Your task to perform on an android device: install app "Microsoft Authenticator" Image 0: 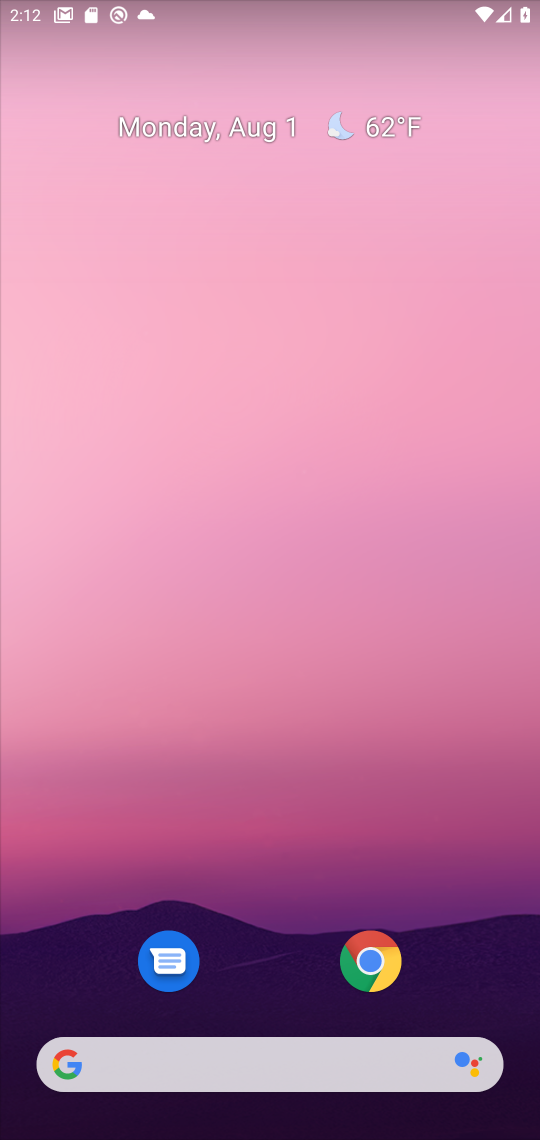
Step 0: press home button
Your task to perform on an android device: install app "Microsoft Authenticator" Image 1: 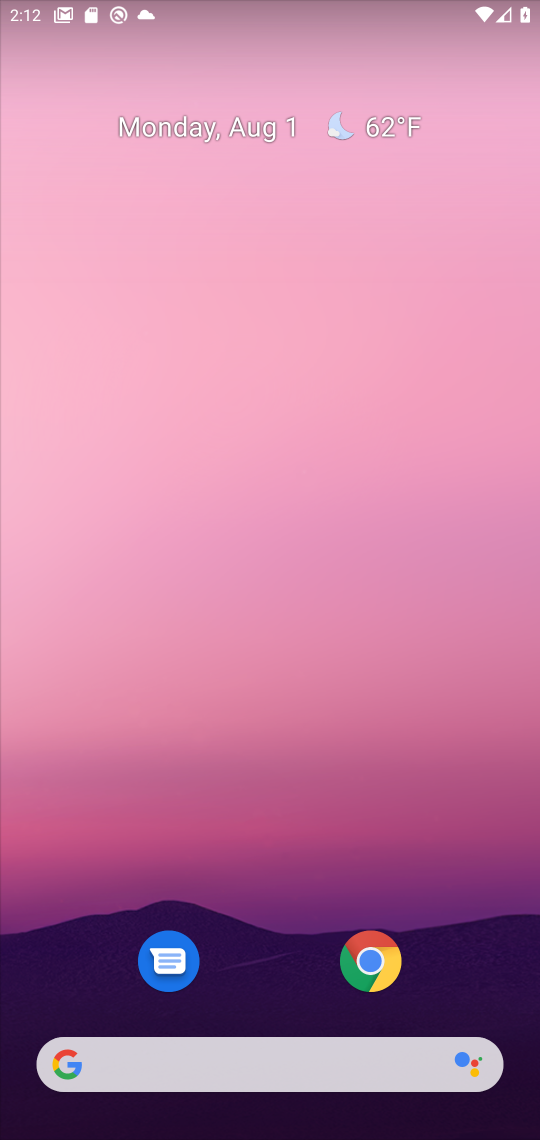
Step 1: press home button
Your task to perform on an android device: install app "Microsoft Authenticator" Image 2: 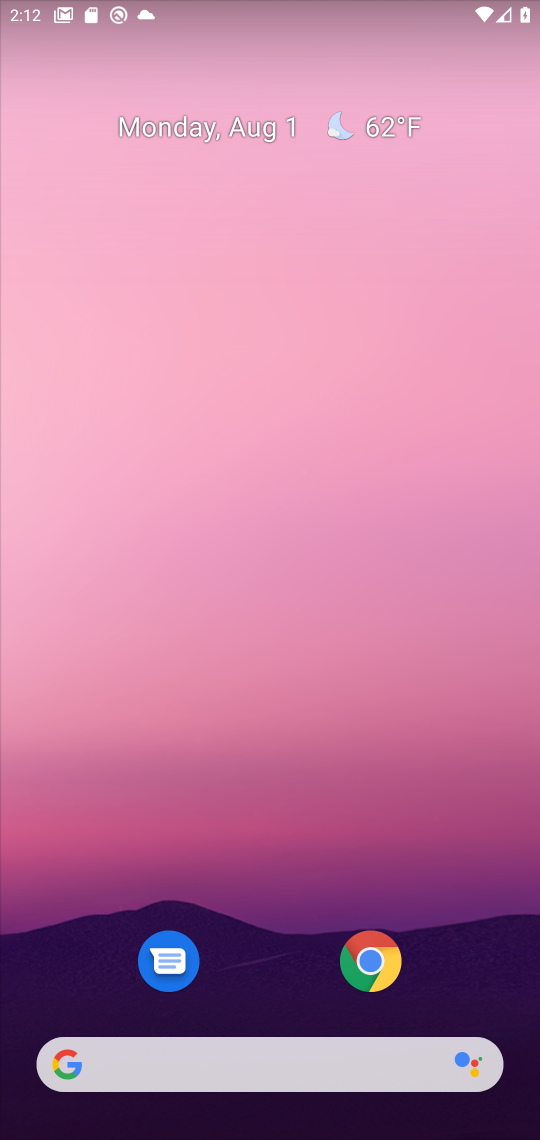
Step 2: drag from (260, 955) to (315, 150)
Your task to perform on an android device: install app "Microsoft Authenticator" Image 3: 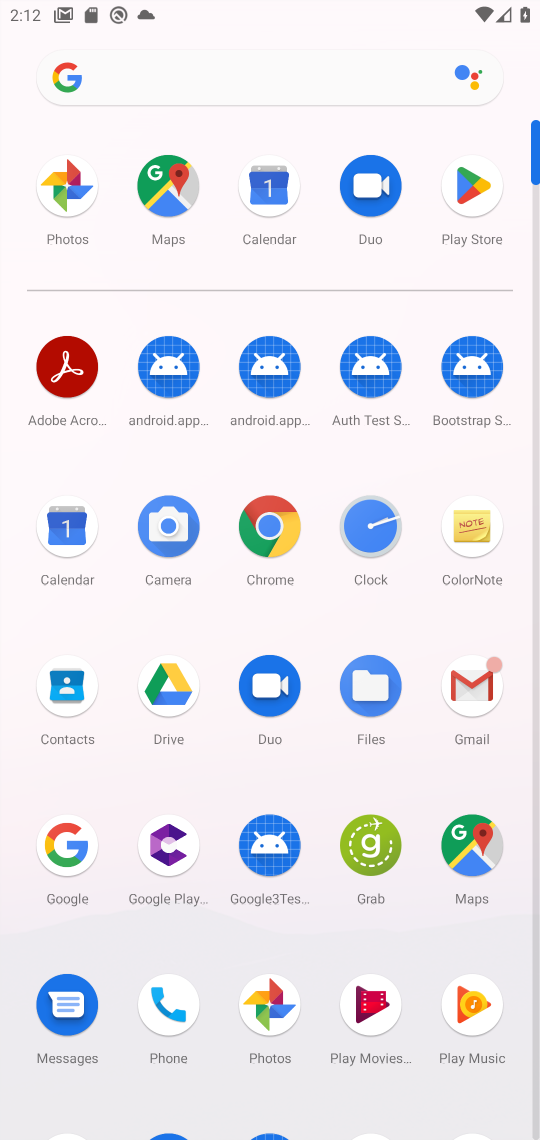
Step 3: click (476, 190)
Your task to perform on an android device: install app "Microsoft Authenticator" Image 4: 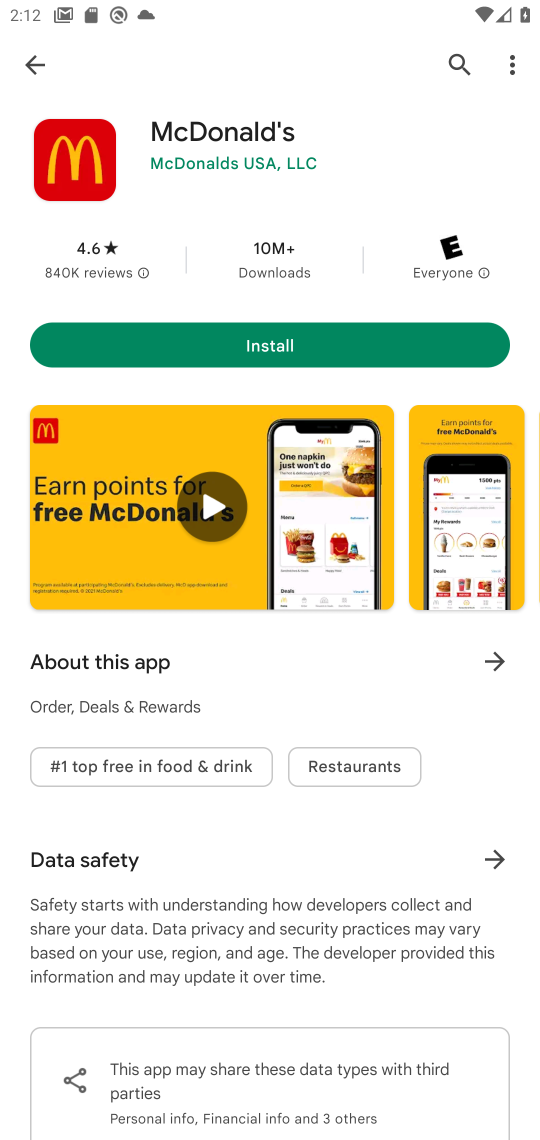
Step 4: click (454, 63)
Your task to perform on an android device: install app "Microsoft Authenticator" Image 5: 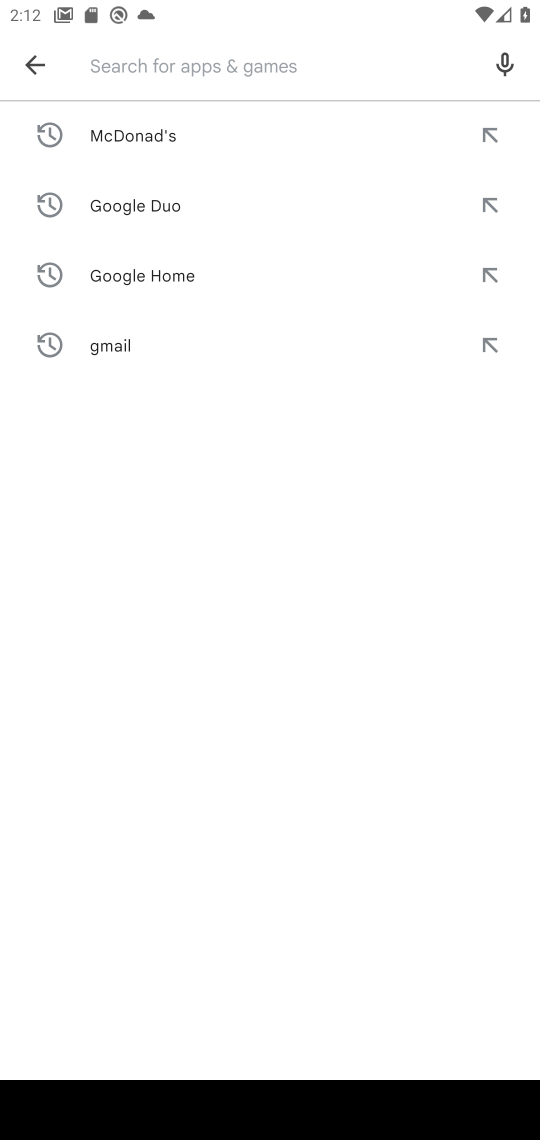
Step 5: type "Microsoft Authenticator"
Your task to perform on an android device: install app "Microsoft Authenticator" Image 6: 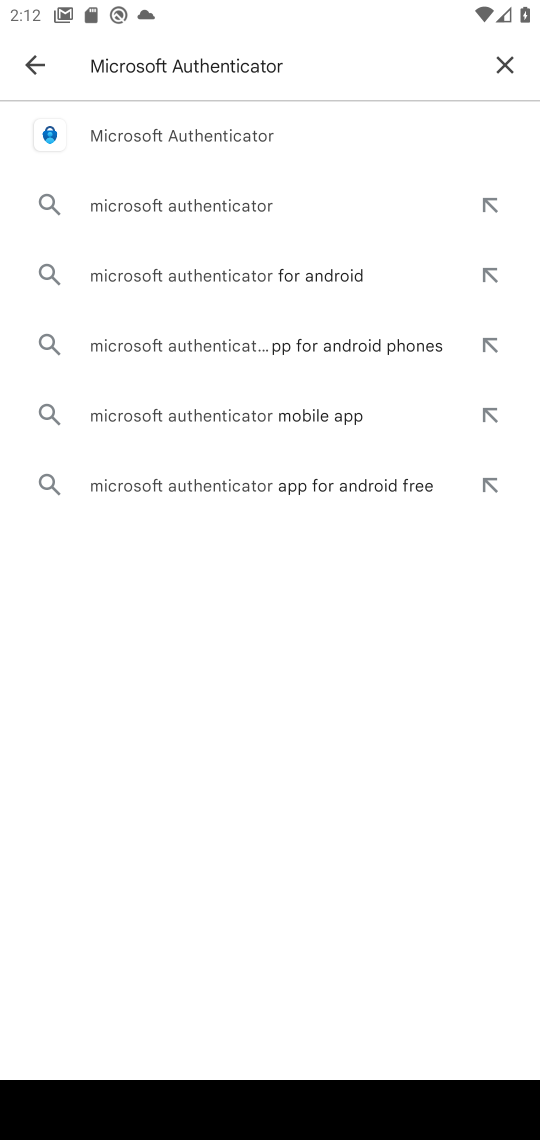
Step 6: press enter
Your task to perform on an android device: install app "Microsoft Authenticator" Image 7: 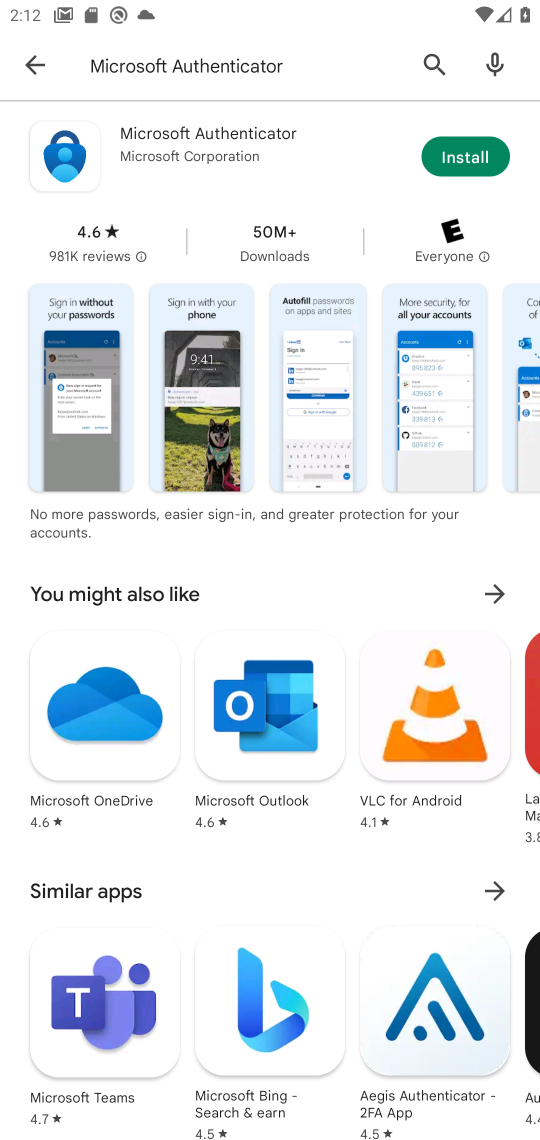
Step 7: click (473, 165)
Your task to perform on an android device: install app "Microsoft Authenticator" Image 8: 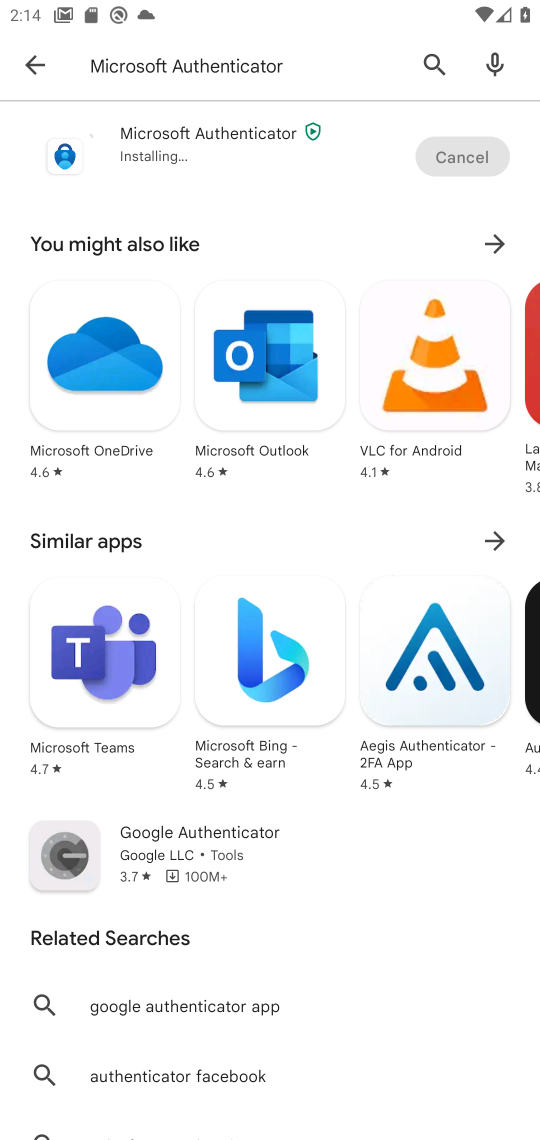
Step 8: task complete